Your task to perform on an android device: Search for Italian restaurants on Maps Image 0: 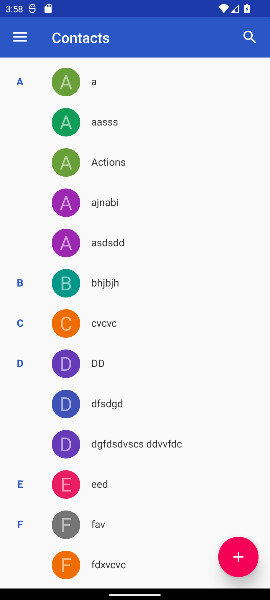
Step 0: press home button
Your task to perform on an android device: Search for Italian restaurants on Maps Image 1: 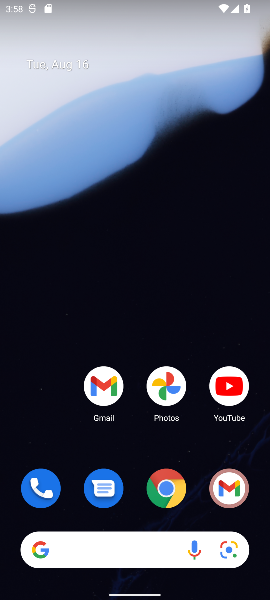
Step 1: drag from (162, 351) to (191, 10)
Your task to perform on an android device: Search for Italian restaurants on Maps Image 2: 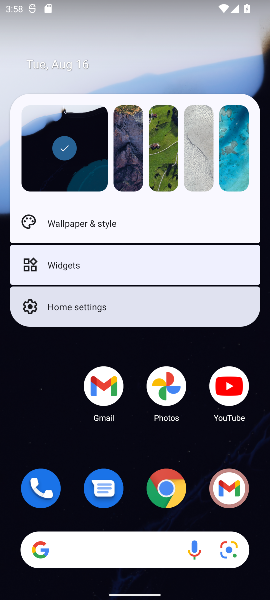
Step 2: click (61, 373)
Your task to perform on an android device: Search for Italian restaurants on Maps Image 3: 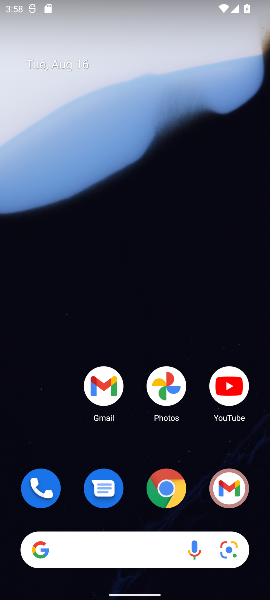
Step 3: drag from (61, 373) to (80, 169)
Your task to perform on an android device: Search for Italian restaurants on Maps Image 4: 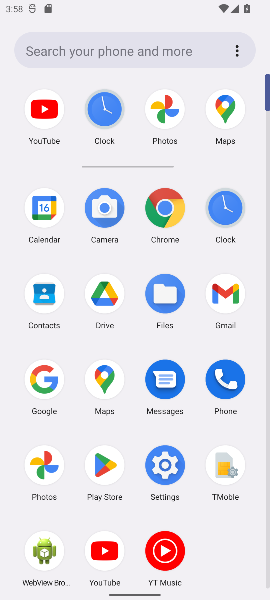
Step 4: click (235, 114)
Your task to perform on an android device: Search for Italian restaurants on Maps Image 5: 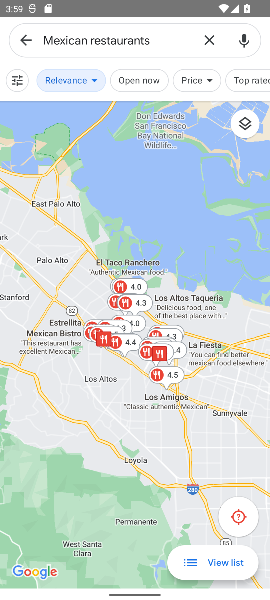
Step 5: click (181, 40)
Your task to perform on an android device: Search for Italian restaurants on Maps Image 6: 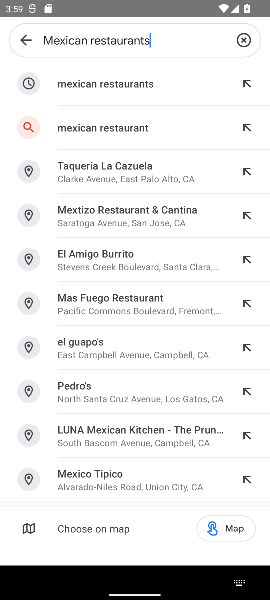
Step 6: click (239, 38)
Your task to perform on an android device: Search for Italian restaurants on Maps Image 7: 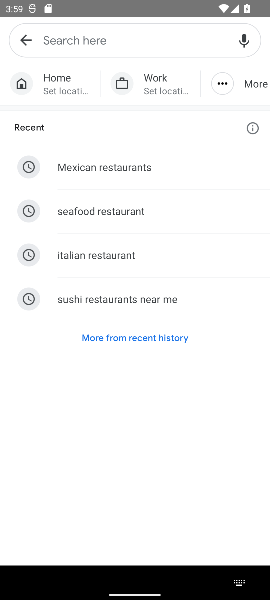
Step 7: type "Italian restaurants"
Your task to perform on an android device: Search for Italian restaurants on Maps Image 8: 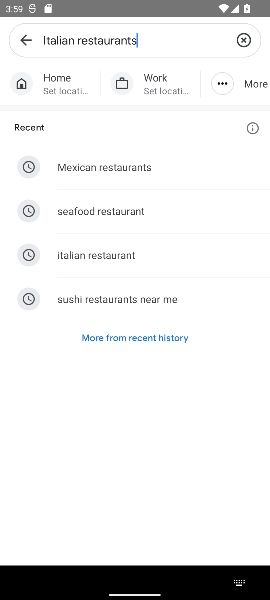
Step 8: press enter
Your task to perform on an android device: Search for Italian restaurants on Maps Image 9: 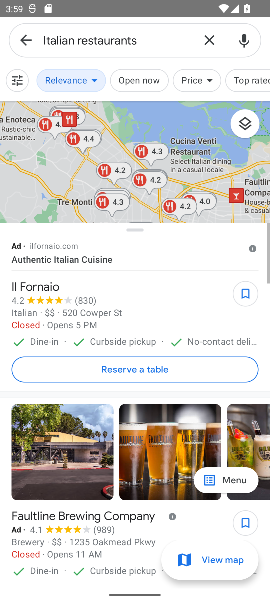
Step 9: task complete